Your task to perform on an android device: find which apps use the phone's location Image 0: 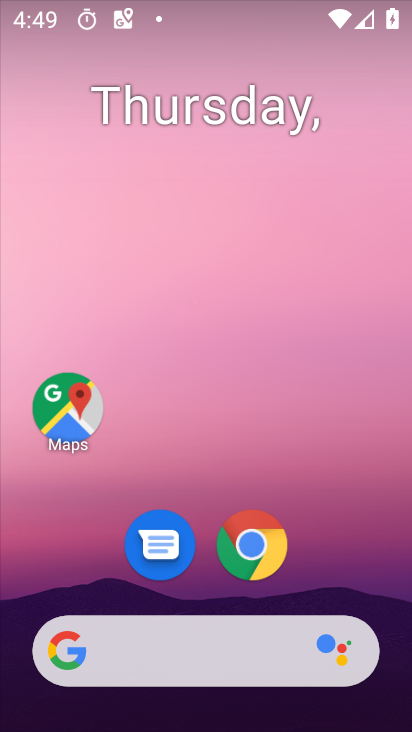
Step 0: drag from (198, 728) to (172, 18)
Your task to perform on an android device: find which apps use the phone's location Image 1: 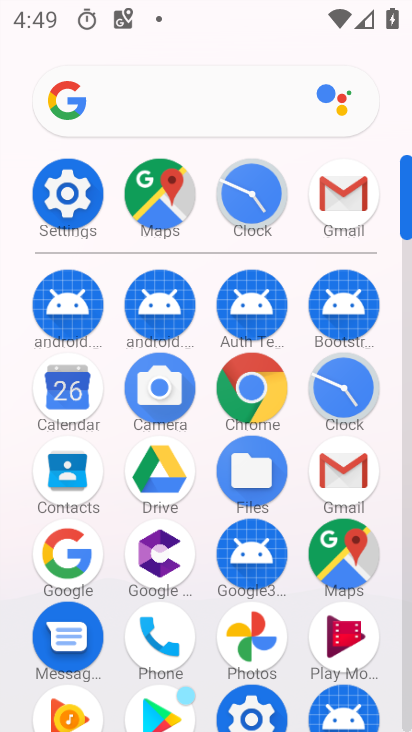
Step 1: click (51, 190)
Your task to perform on an android device: find which apps use the phone's location Image 2: 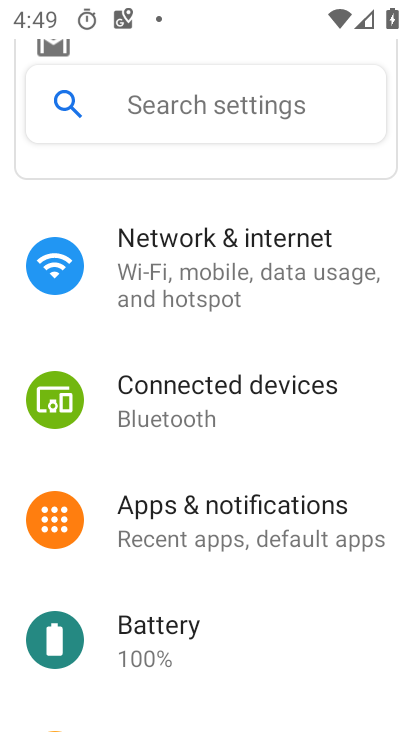
Step 2: drag from (174, 675) to (160, 290)
Your task to perform on an android device: find which apps use the phone's location Image 3: 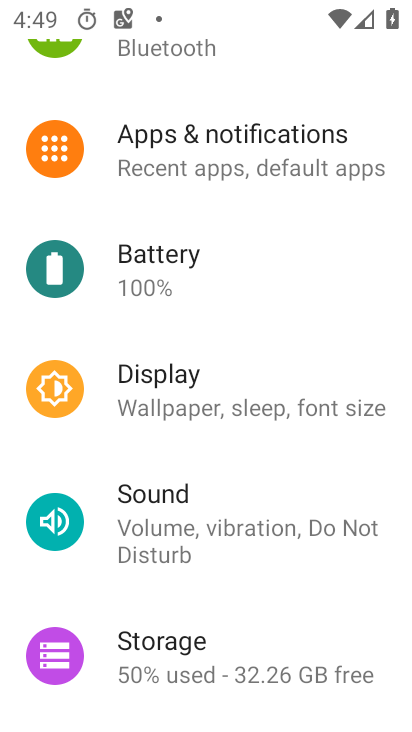
Step 3: drag from (171, 682) to (173, 226)
Your task to perform on an android device: find which apps use the phone's location Image 4: 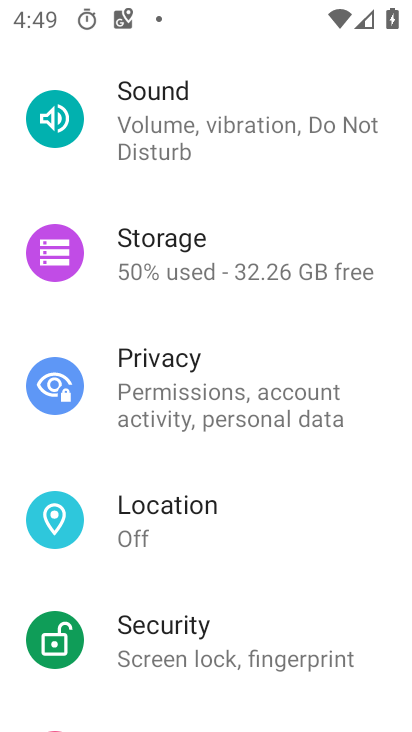
Step 4: click (149, 517)
Your task to perform on an android device: find which apps use the phone's location Image 5: 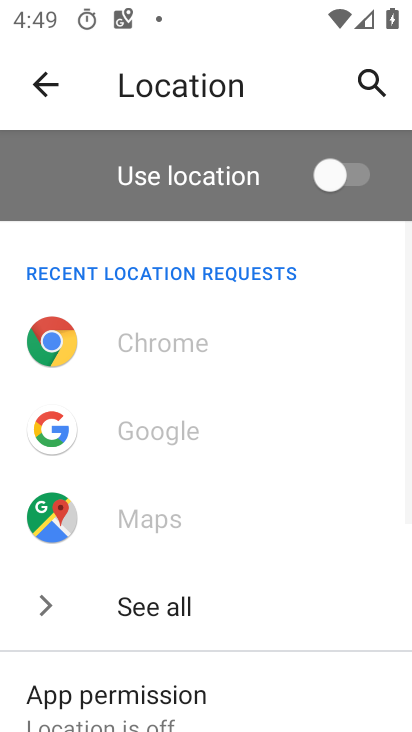
Step 5: drag from (168, 703) to (164, 229)
Your task to perform on an android device: find which apps use the phone's location Image 6: 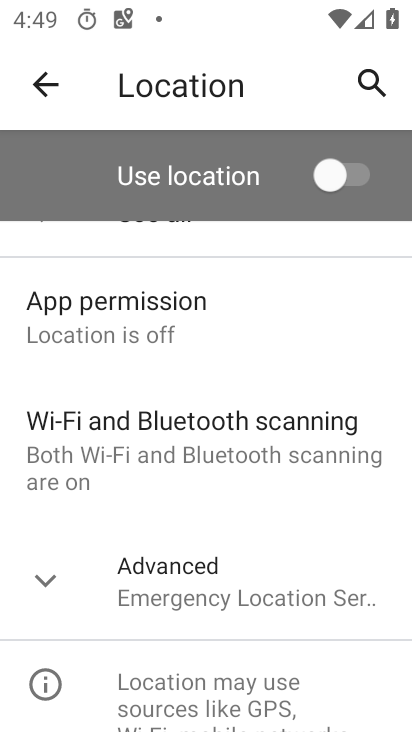
Step 6: click (135, 307)
Your task to perform on an android device: find which apps use the phone's location Image 7: 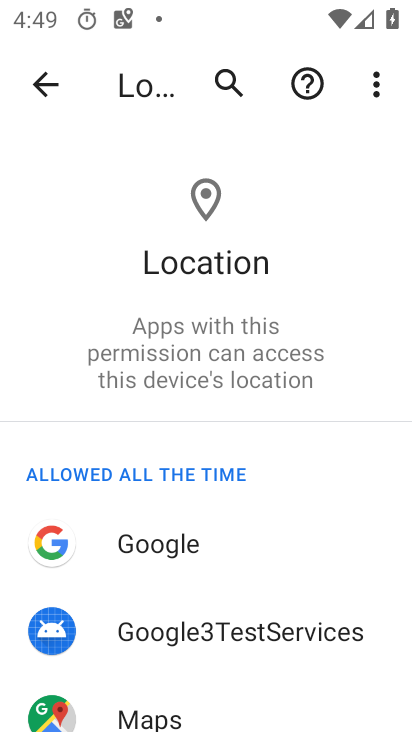
Step 7: task complete